Your task to perform on an android device: show emergency info Image 0: 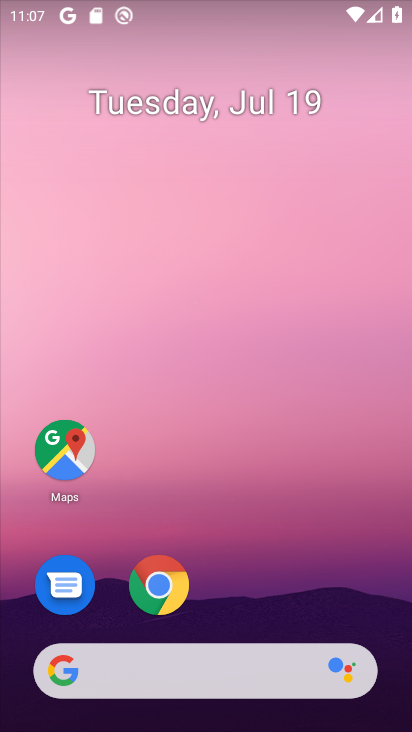
Step 0: drag from (217, 669) to (363, 46)
Your task to perform on an android device: show emergency info Image 1: 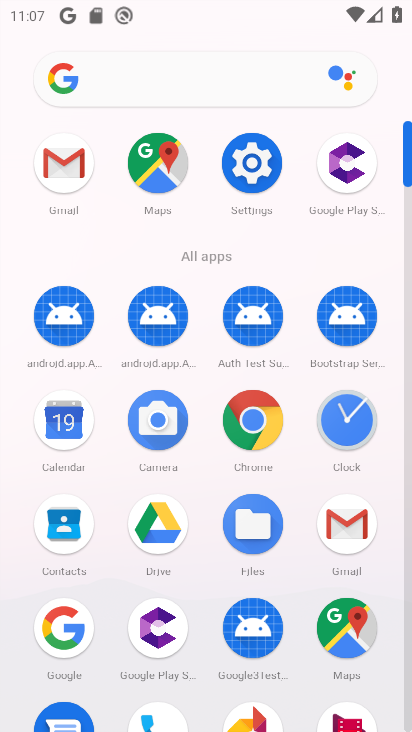
Step 1: click (259, 161)
Your task to perform on an android device: show emergency info Image 2: 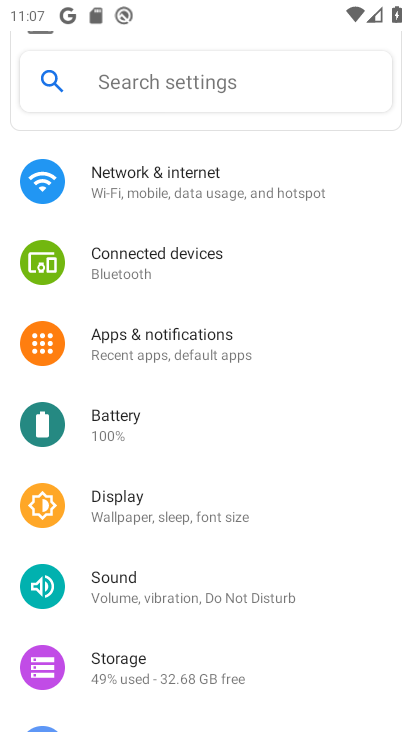
Step 2: drag from (299, 669) to (389, 207)
Your task to perform on an android device: show emergency info Image 3: 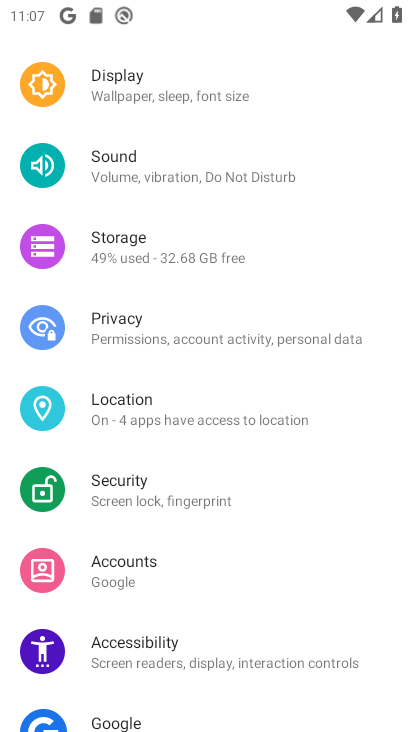
Step 3: drag from (272, 606) to (366, 85)
Your task to perform on an android device: show emergency info Image 4: 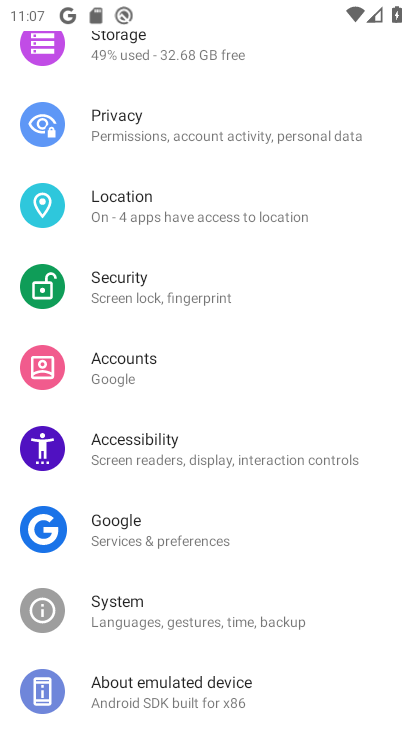
Step 4: click (198, 682)
Your task to perform on an android device: show emergency info Image 5: 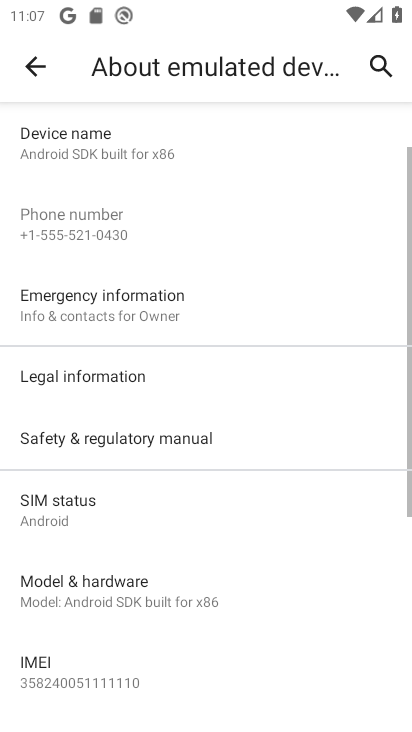
Step 5: click (134, 314)
Your task to perform on an android device: show emergency info Image 6: 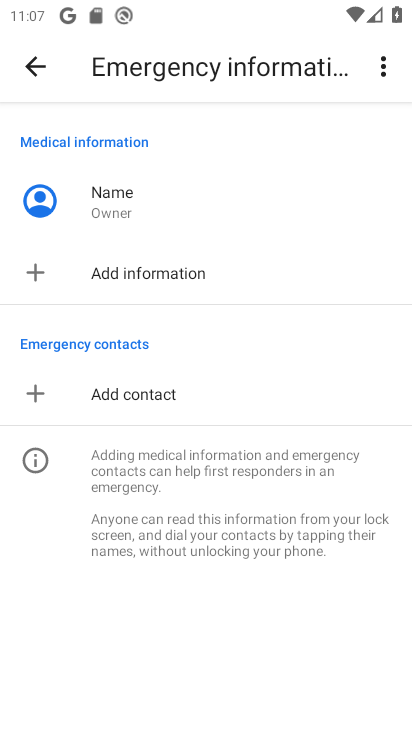
Step 6: task complete